Your task to perform on an android device: Open a new Chrome incognito window Image 0: 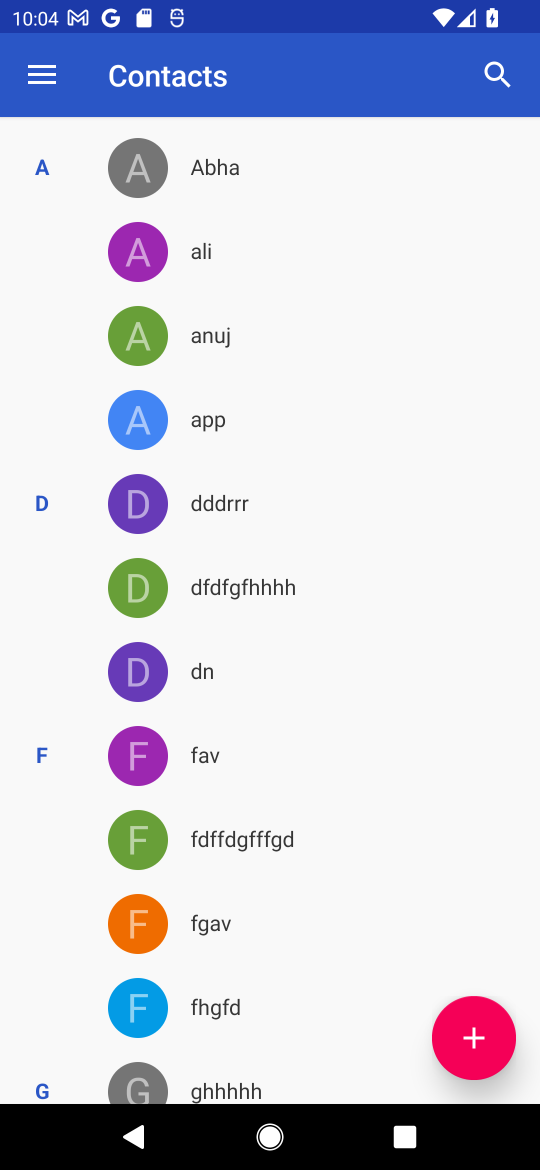
Step 0: press home button
Your task to perform on an android device: Open a new Chrome incognito window Image 1: 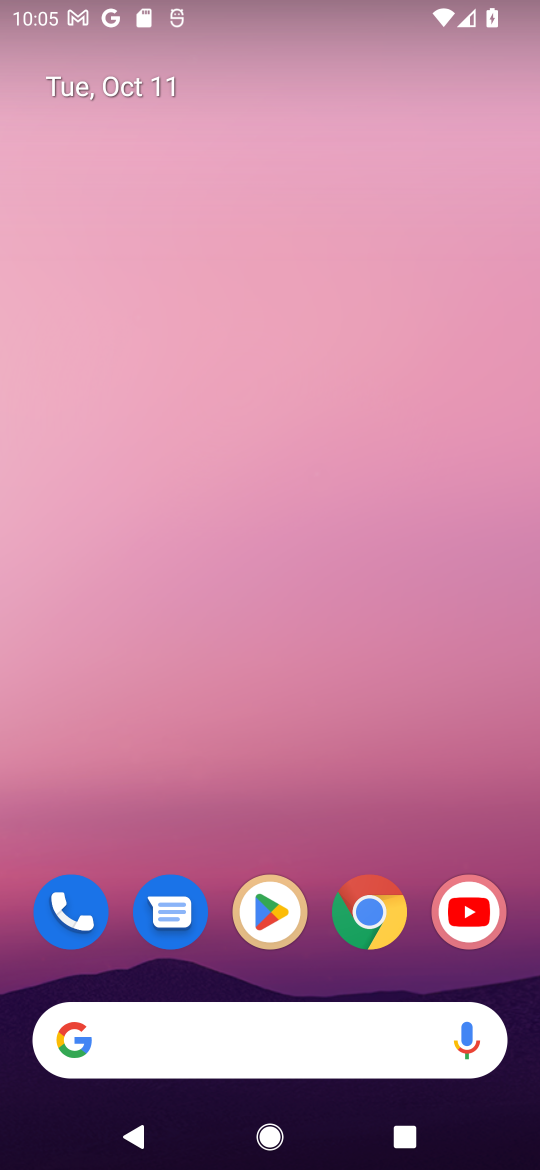
Step 1: click (369, 912)
Your task to perform on an android device: Open a new Chrome incognito window Image 2: 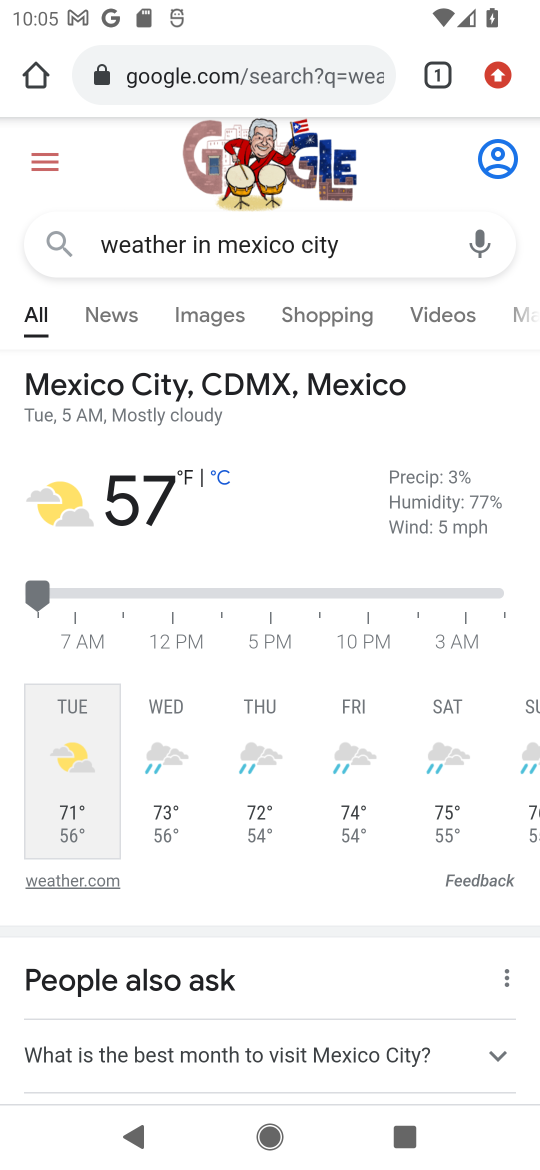
Step 2: click (494, 79)
Your task to perform on an android device: Open a new Chrome incognito window Image 3: 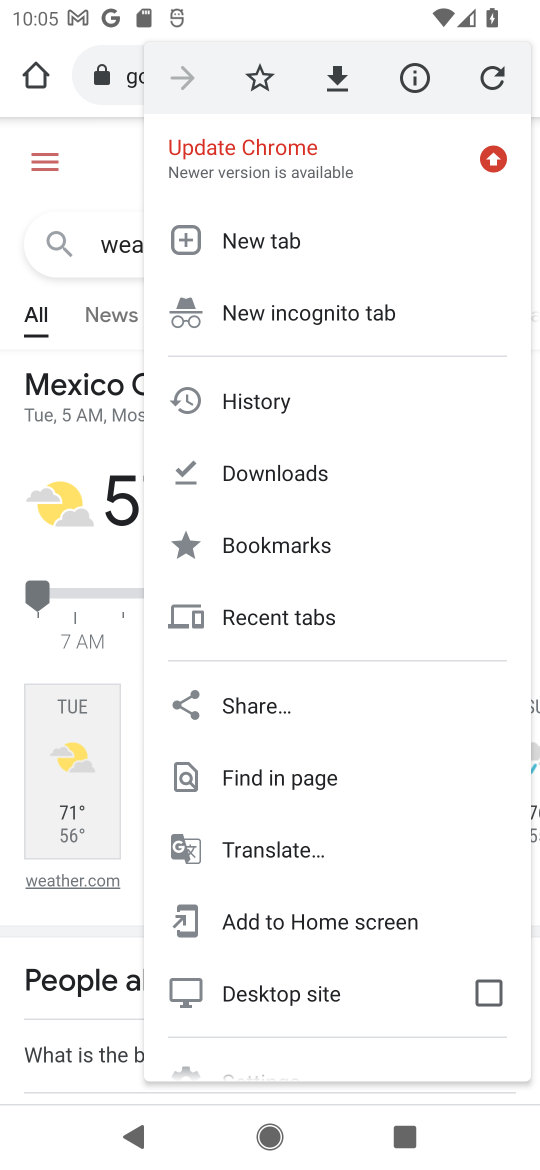
Step 3: click (282, 309)
Your task to perform on an android device: Open a new Chrome incognito window Image 4: 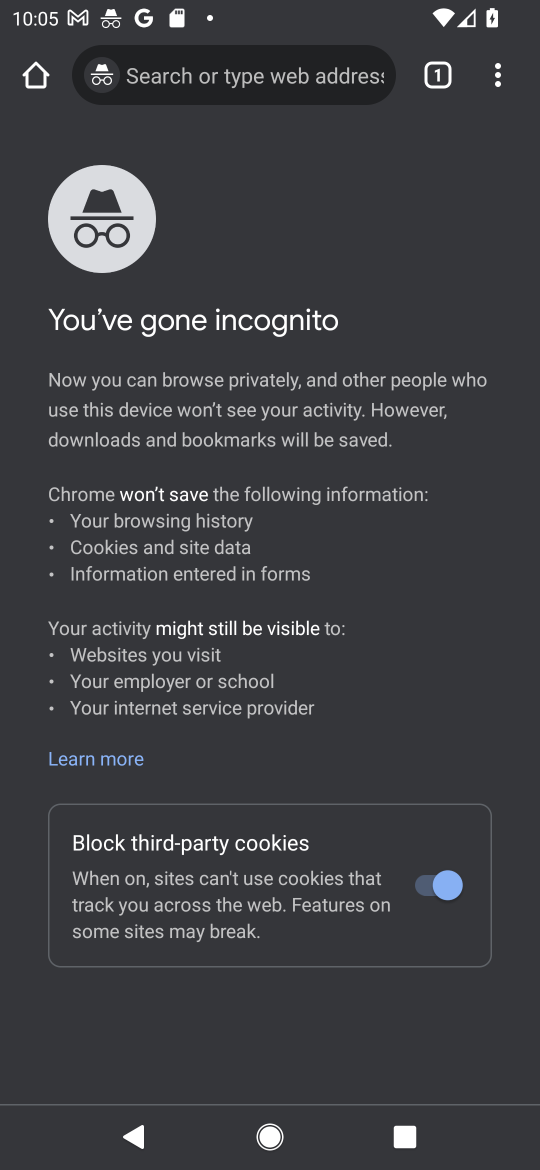
Step 4: task complete